Your task to perform on an android device: change the clock display to show seconds Image 0: 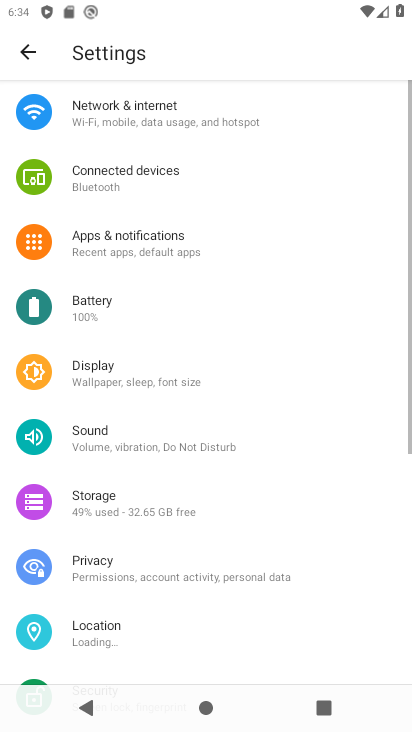
Step 0: press home button
Your task to perform on an android device: change the clock display to show seconds Image 1: 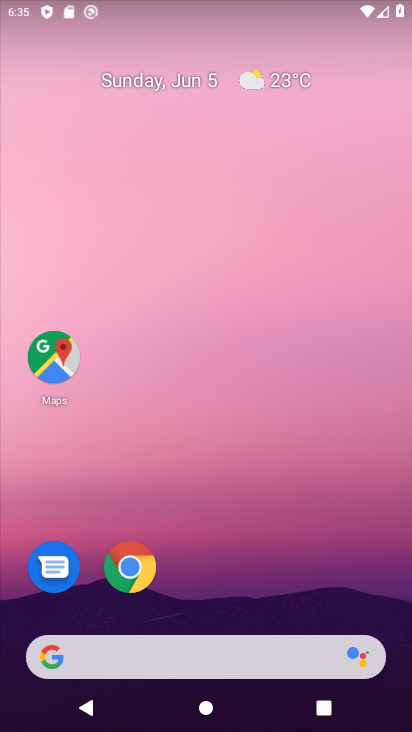
Step 1: drag from (396, 652) to (201, 6)
Your task to perform on an android device: change the clock display to show seconds Image 2: 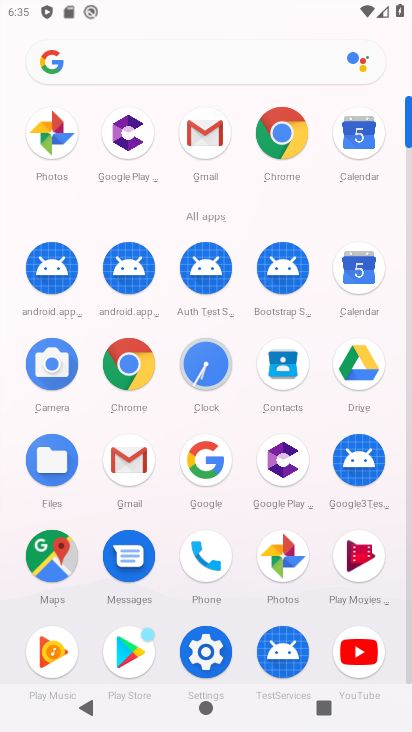
Step 2: click (195, 376)
Your task to perform on an android device: change the clock display to show seconds Image 3: 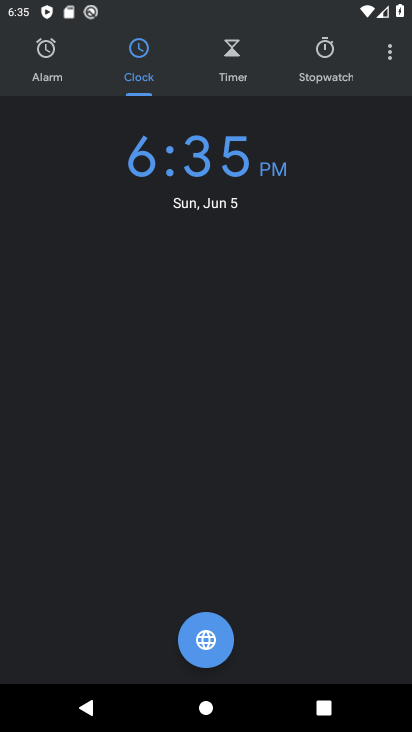
Step 3: click (394, 53)
Your task to perform on an android device: change the clock display to show seconds Image 4: 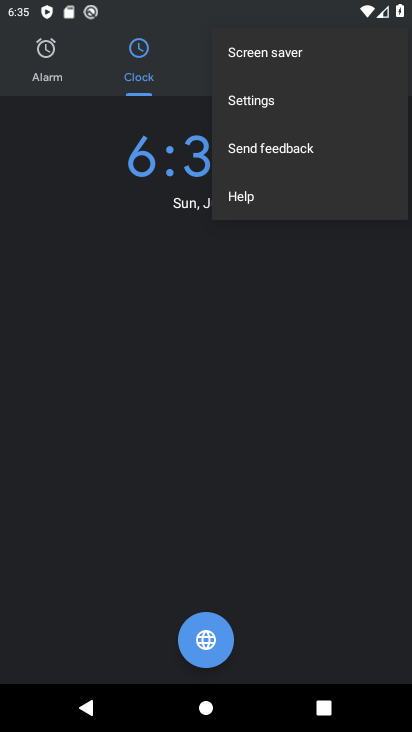
Step 4: click (284, 97)
Your task to perform on an android device: change the clock display to show seconds Image 5: 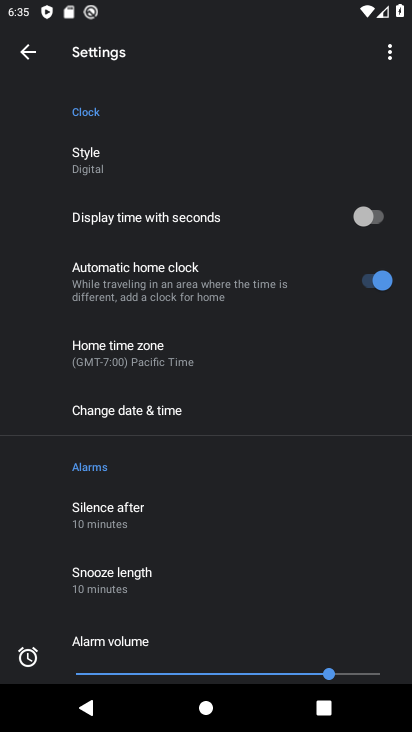
Step 5: click (345, 224)
Your task to perform on an android device: change the clock display to show seconds Image 6: 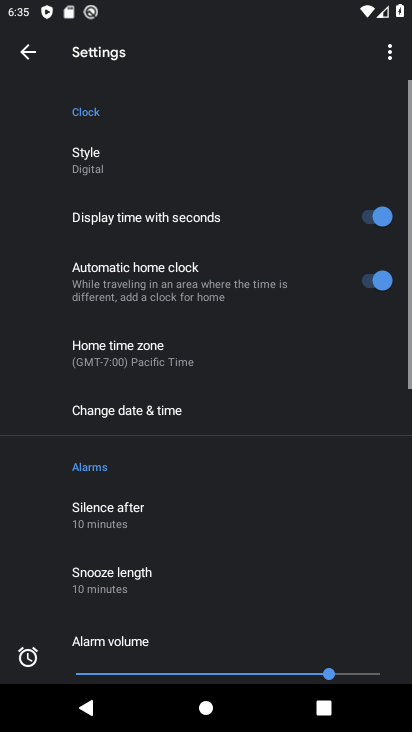
Step 6: task complete